Your task to perform on an android device: open the mobile data screen to see how much data has been used Image 0: 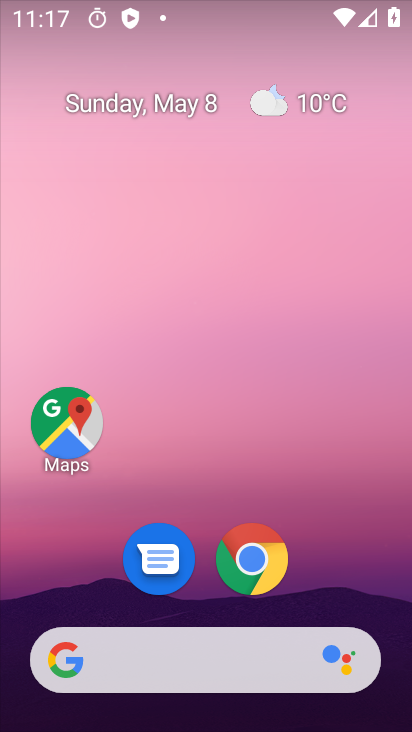
Step 0: drag from (212, 594) to (236, 166)
Your task to perform on an android device: open the mobile data screen to see how much data has been used Image 1: 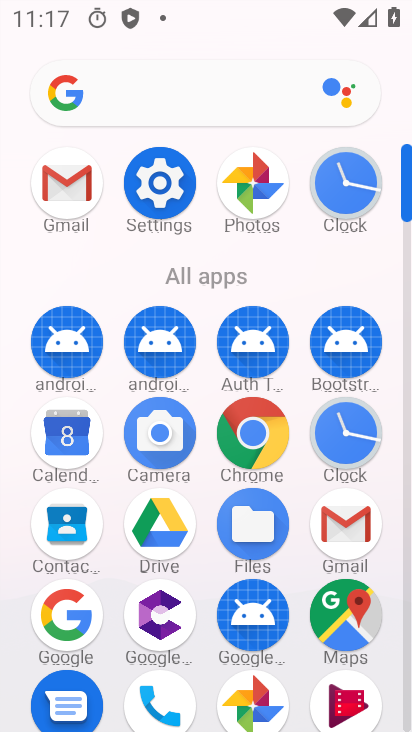
Step 1: click (161, 211)
Your task to perform on an android device: open the mobile data screen to see how much data has been used Image 2: 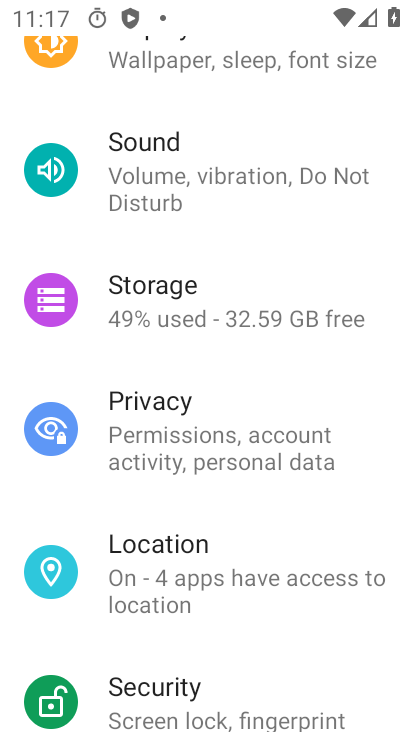
Step 2: drag from (175, 201) to (169, 542)
Your task to perform on an android device: open the mobile data screen to see how much data has been used Image 3: 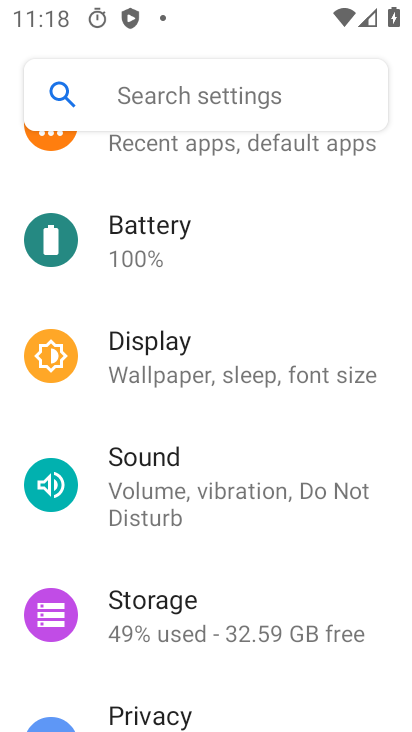
Step 3: drag from (177, 259) to (174, 536)
Your task to perform on an android device: open the mobile data screen to see how much data has been used Image 4: 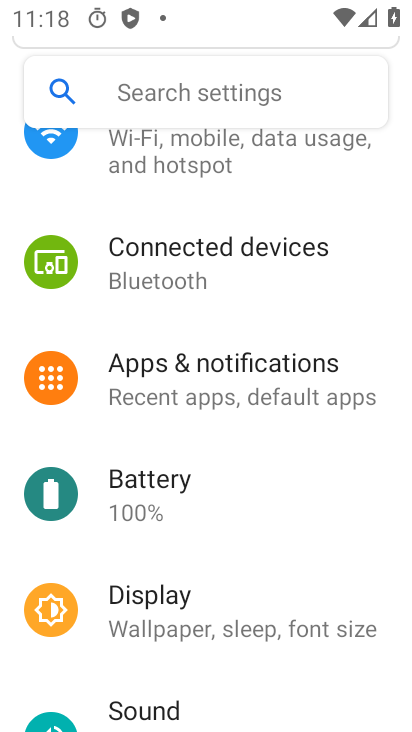
Step 4: drag from (204, 334) to (193, 610)
Your task to perform on an android device: open the mobile data screen to see how much data has been used Image 5: 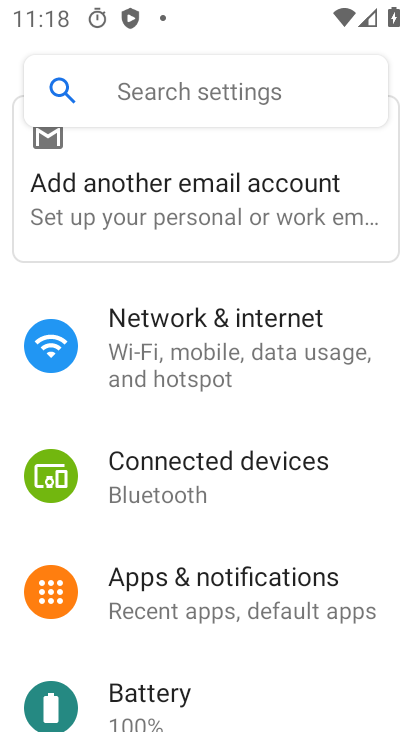
Step 5: click (184, 348)
Your task to perform on an android device: open the mobile data screen to see how much data has been used Image 6: 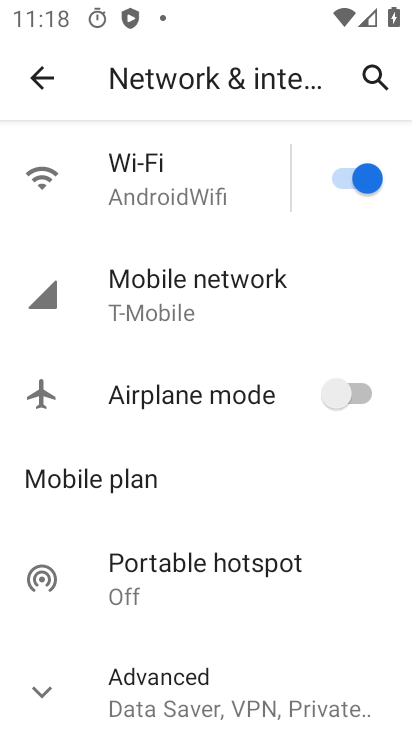
Step 6: click (189, 326)
Your task to perform on an android device: open the mobile data screen to see how much data has been used Image 7: 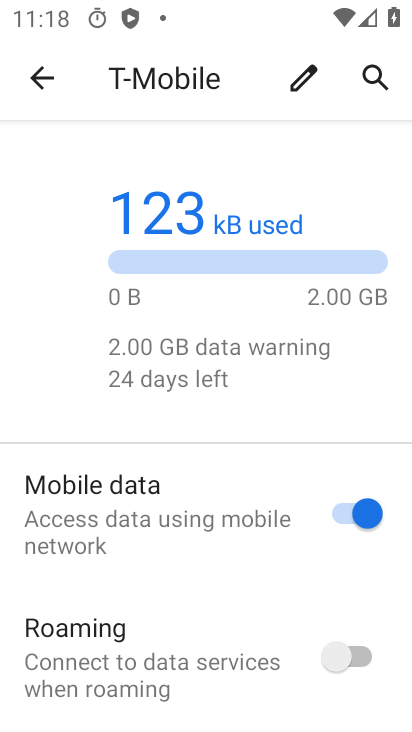
Step 7: drag from (175, 489) to (193, 342)
Your task to perform on an android device: open the mobile data screen to see how much data has been used Image 8: 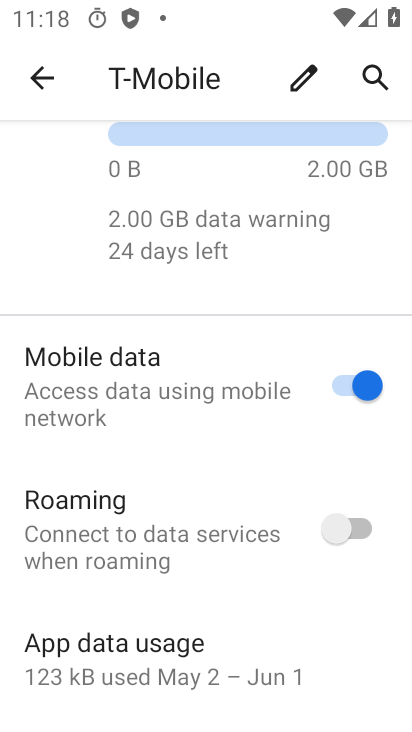
Step 8: drag from (142, 543) to (163, 410)
Your task to perform on an android device: open the mobile data screen to see how much data has been used Image 9: 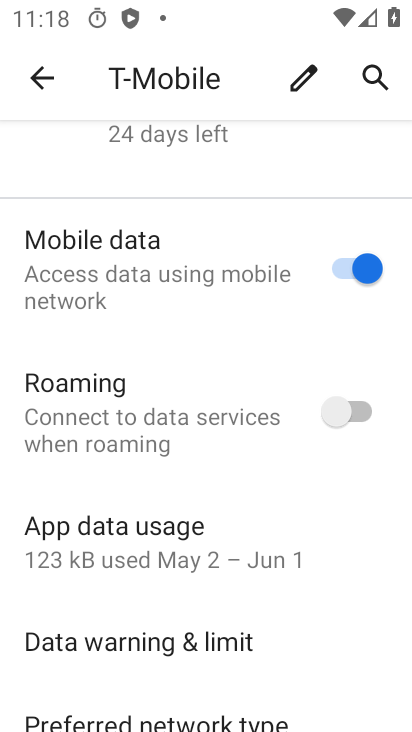
Step 9: click (134, 564)
Your task to perform on an android device: open the mobile data screen to see how much data has been used Image 10: 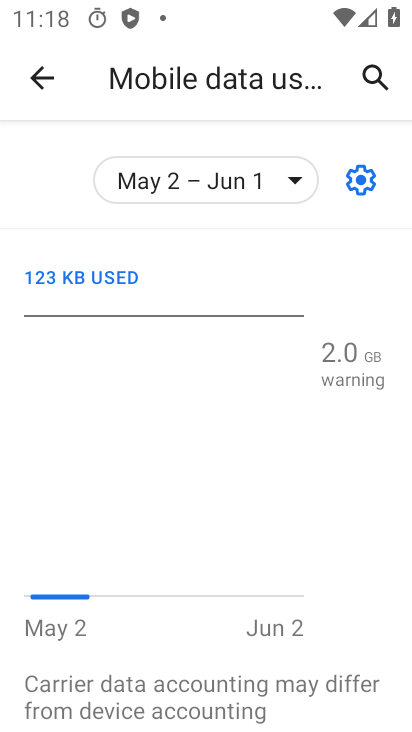
Step 10: task complete